Your task to perform on an android device: Do I have any events this weekend? Image 0: 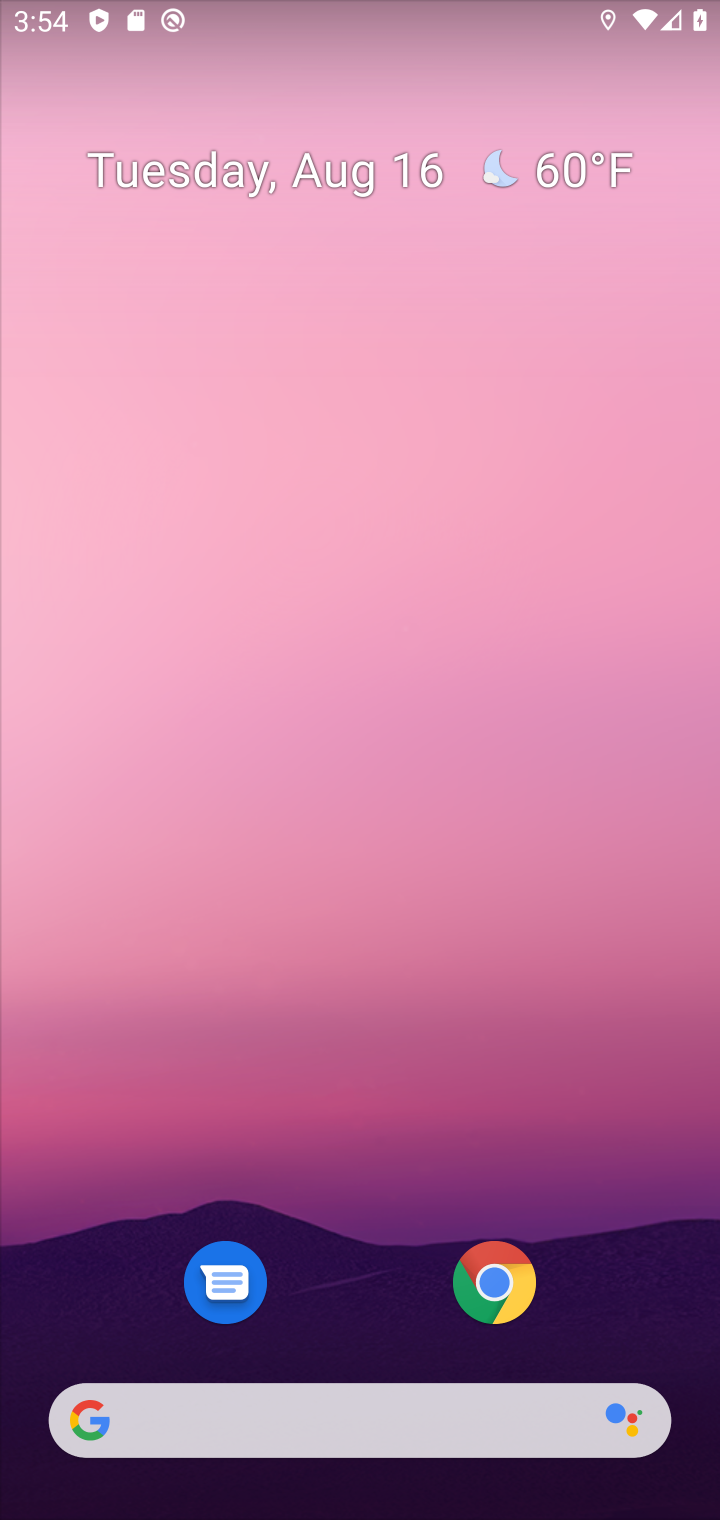
Step 0: drag from (563, 78) to (569, 7)
Your task to perform on an android device: Do I have any events this weekend? Image 1: 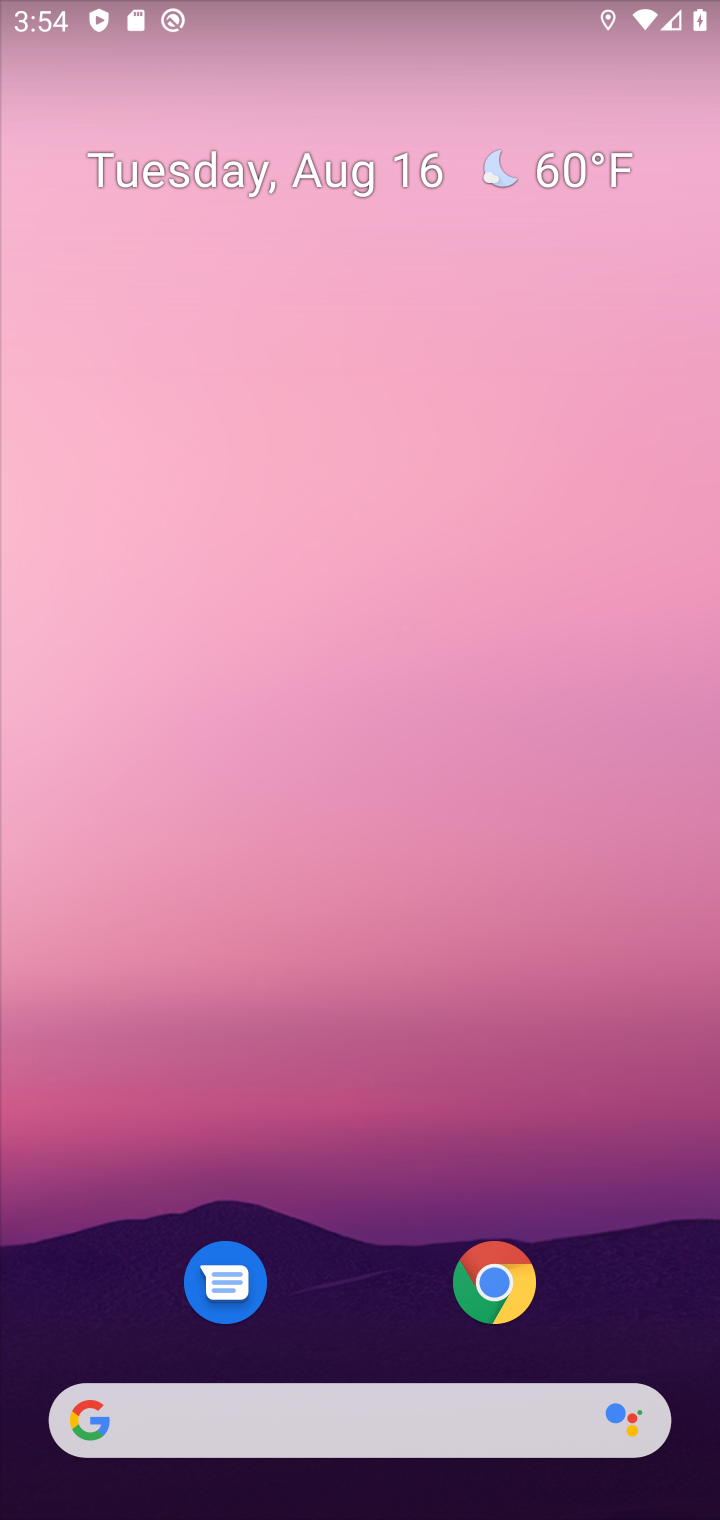
Step 1: drag from (380, 1163) to (289, 50)
Your task to perform on an android device: Do I have any events this weekend? Image 2: 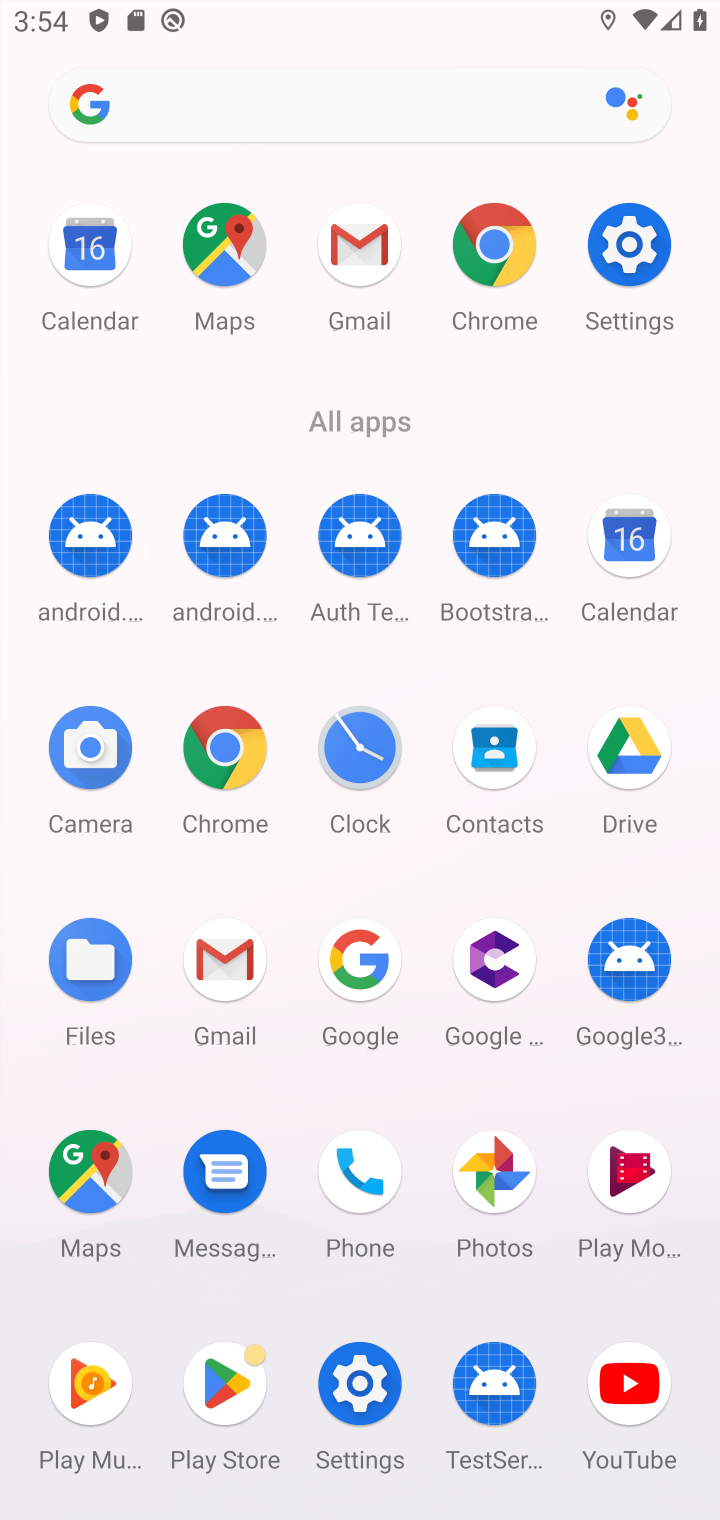
Step 2: click (74, 444)
Your task to perform on an android device: Do I have any events this weekend? Image 3: 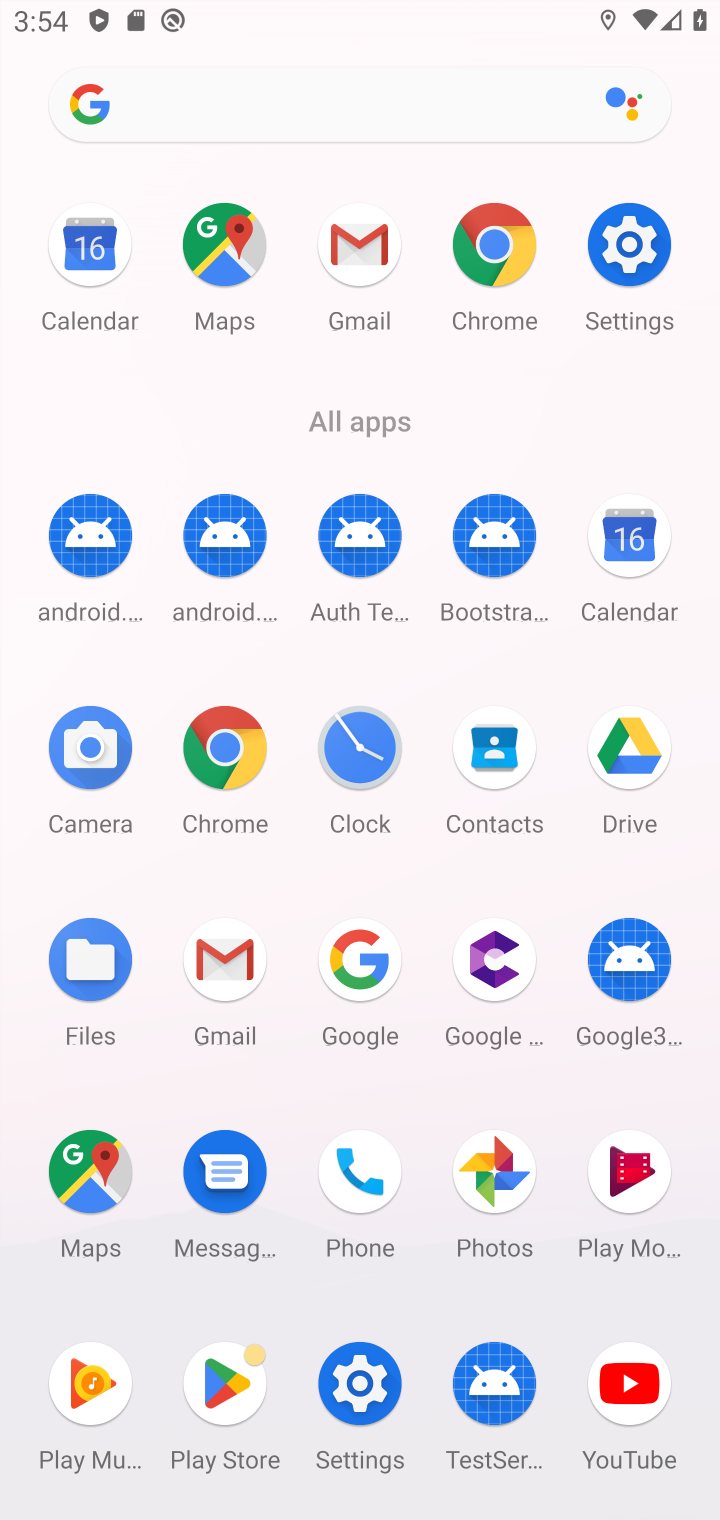
Step 3: click (621, 544)
Your task to perform on an android device: Do I have any events this weekend? Image 4: 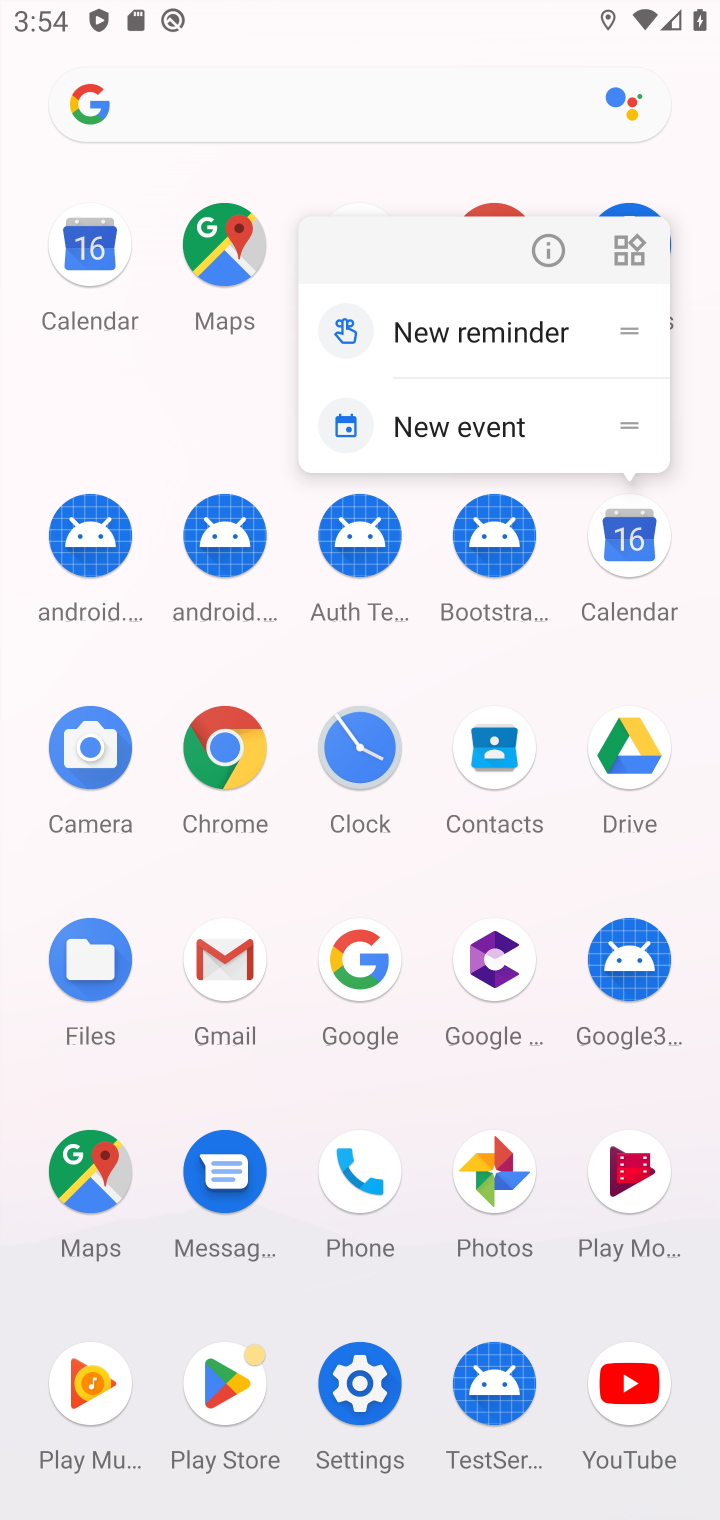
Step 4: click (649, 550)
Your task to perform on an android device: Do I have any events this weekend? Image 5: 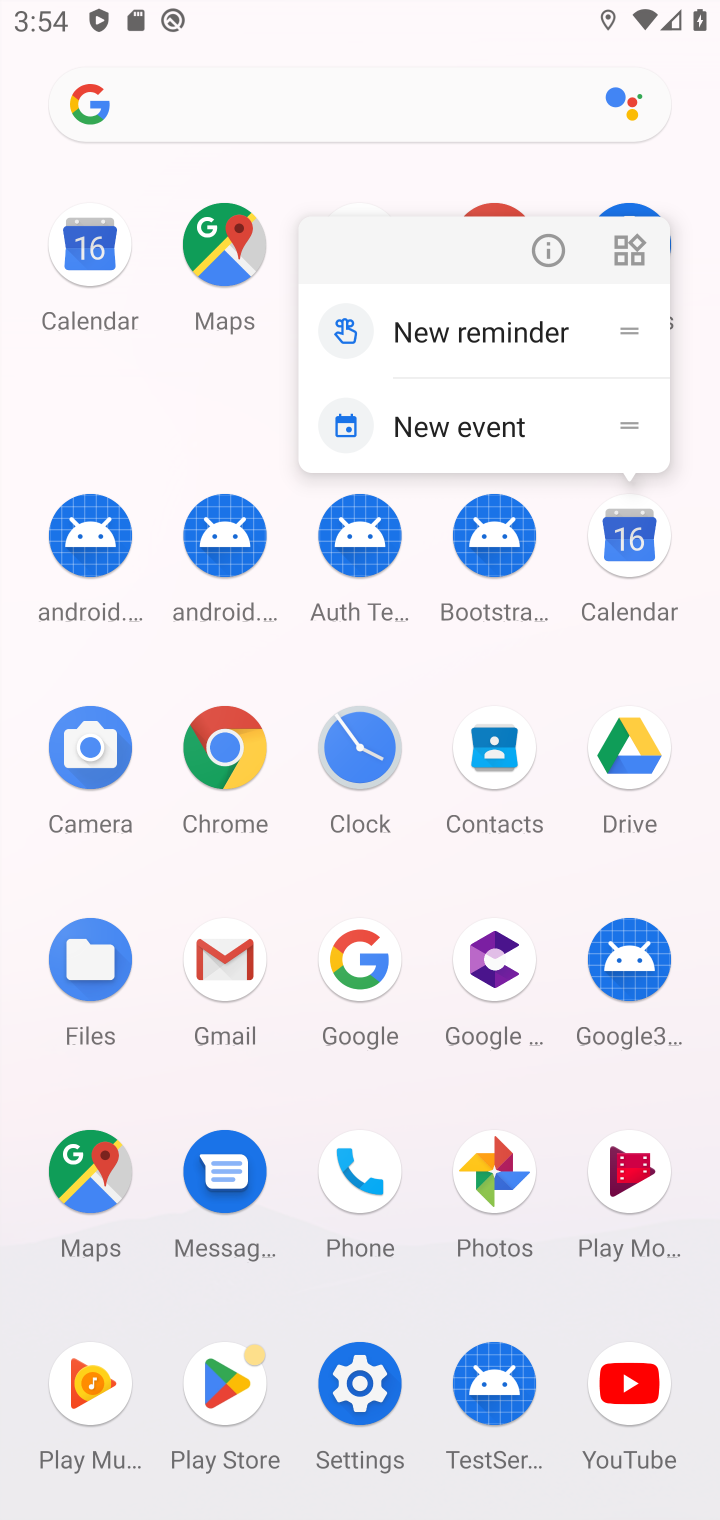
Step 5: click (639, 552)
Your task to perform on an android device: Do I have any events this weekend? Image 6: 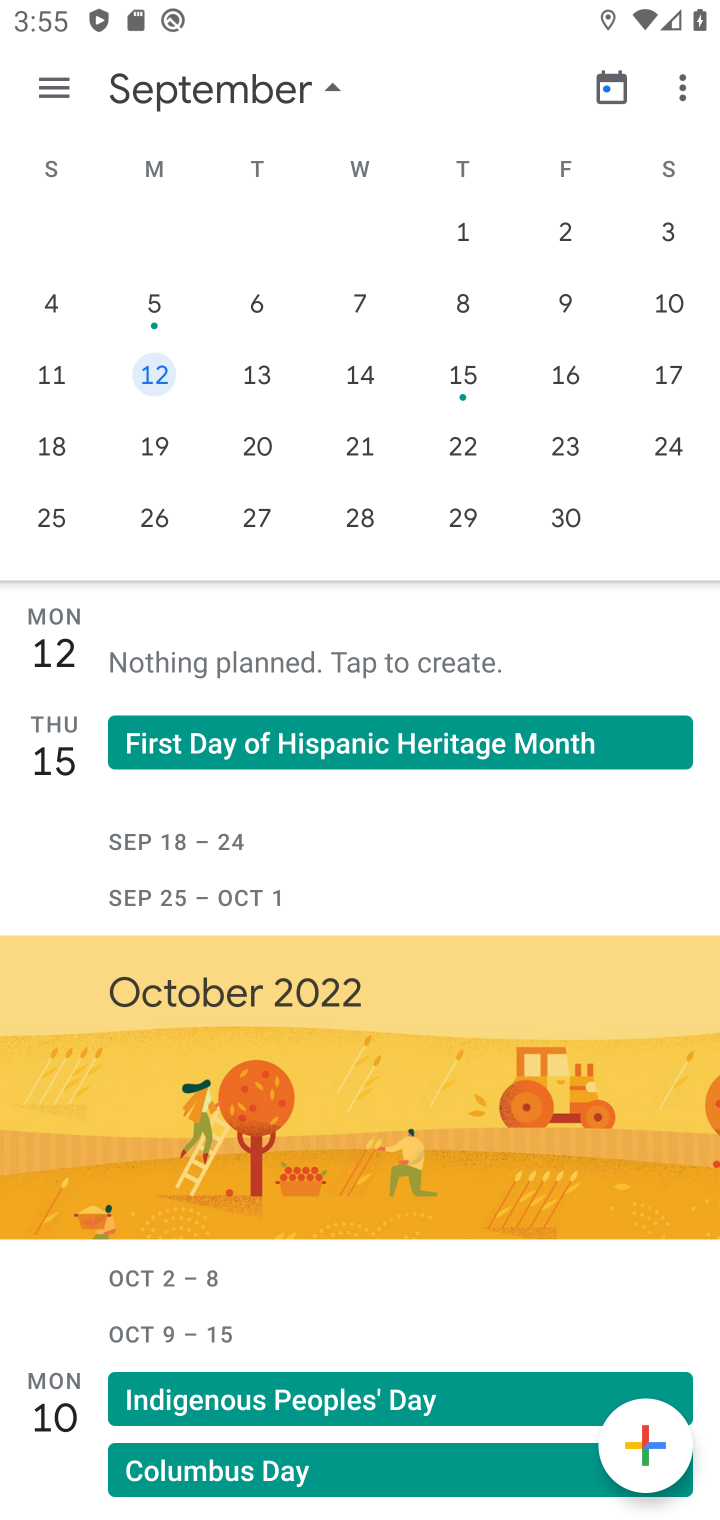
Step 6: drag from (33, 362) to (709, 383)
Your task to perform on an android device: Do I have any events this weekend? Image 7: 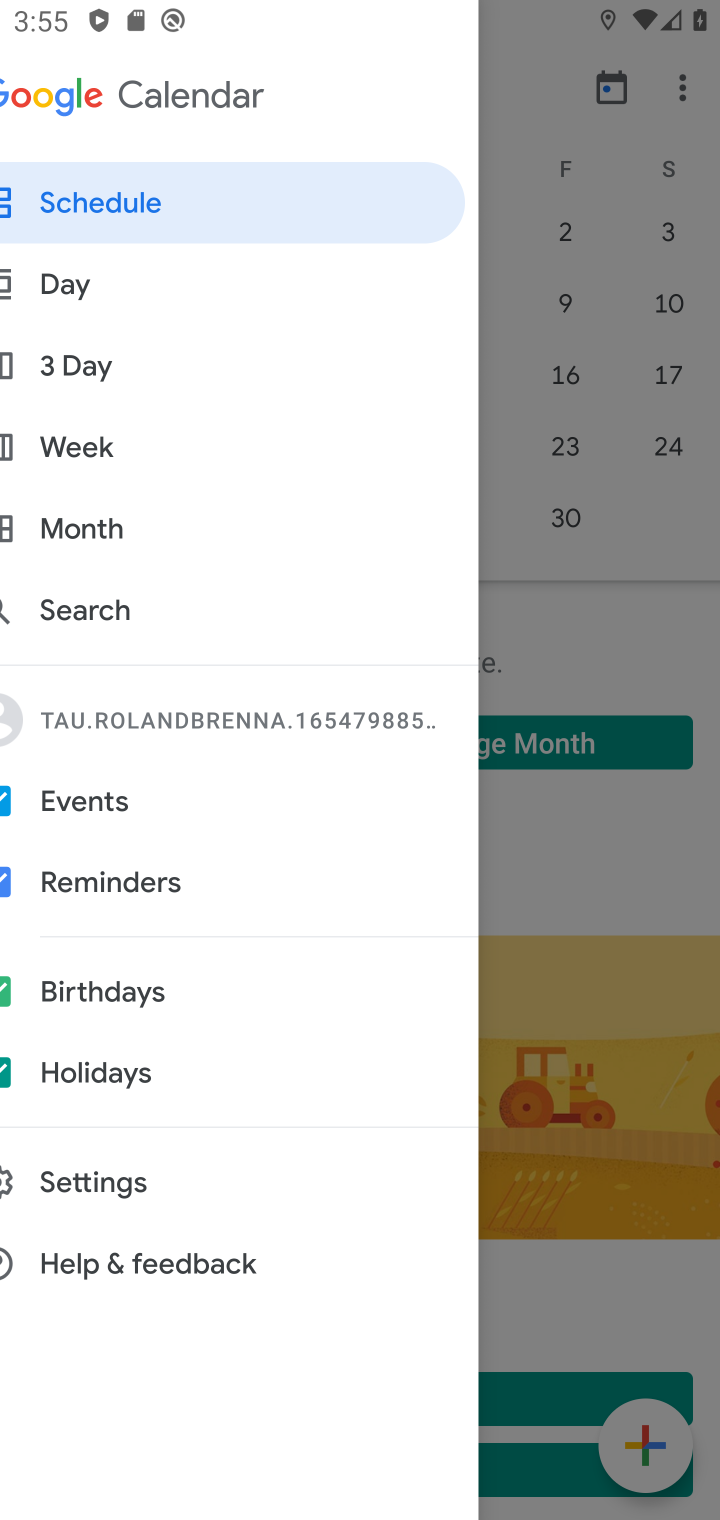
Step 7: drag from (511, 375) to (35, 436)
Your task to perform on an android device: Do I have any events this weekend? Image 8: 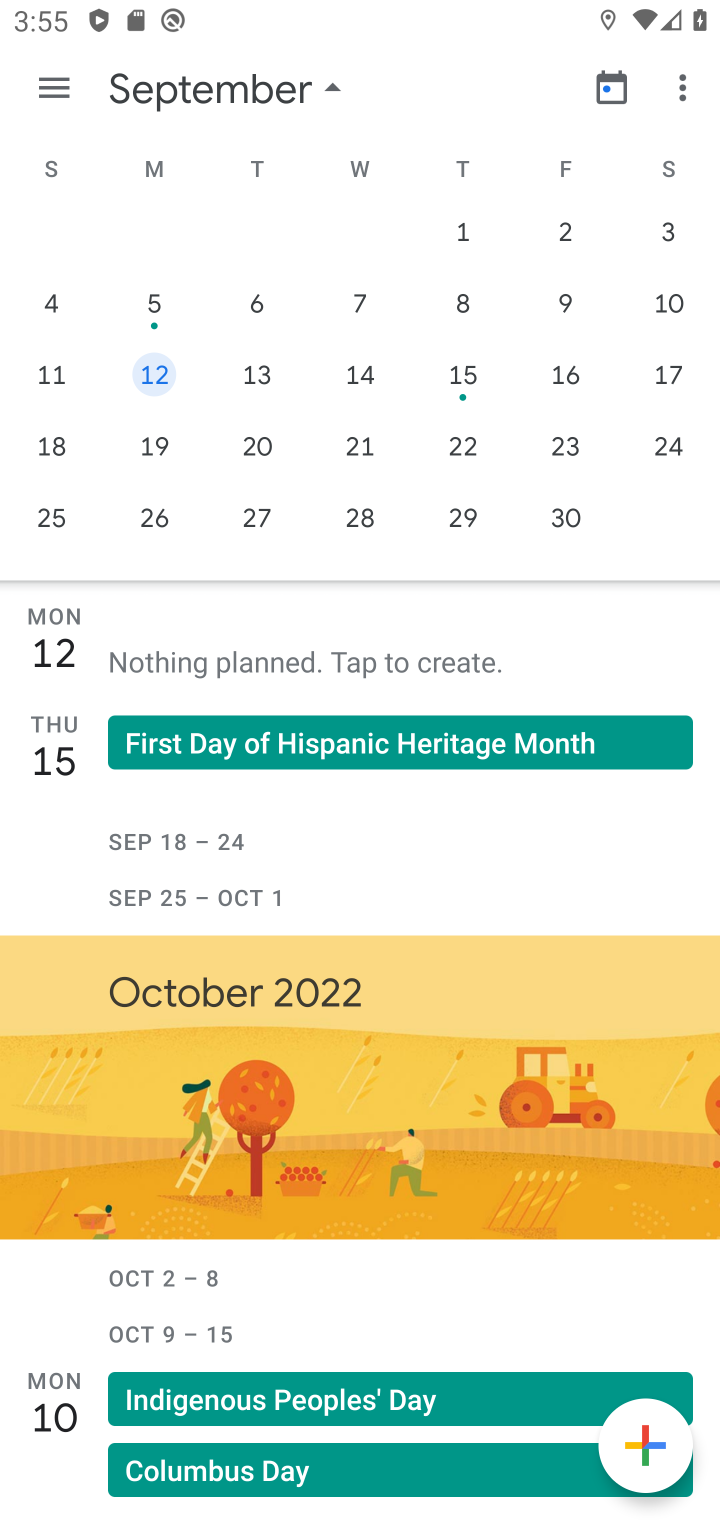
Step 8: drag from (52, 370) to (684, 376)
Your task to perform on an android device: Do I have any events this weekend? Image 9: 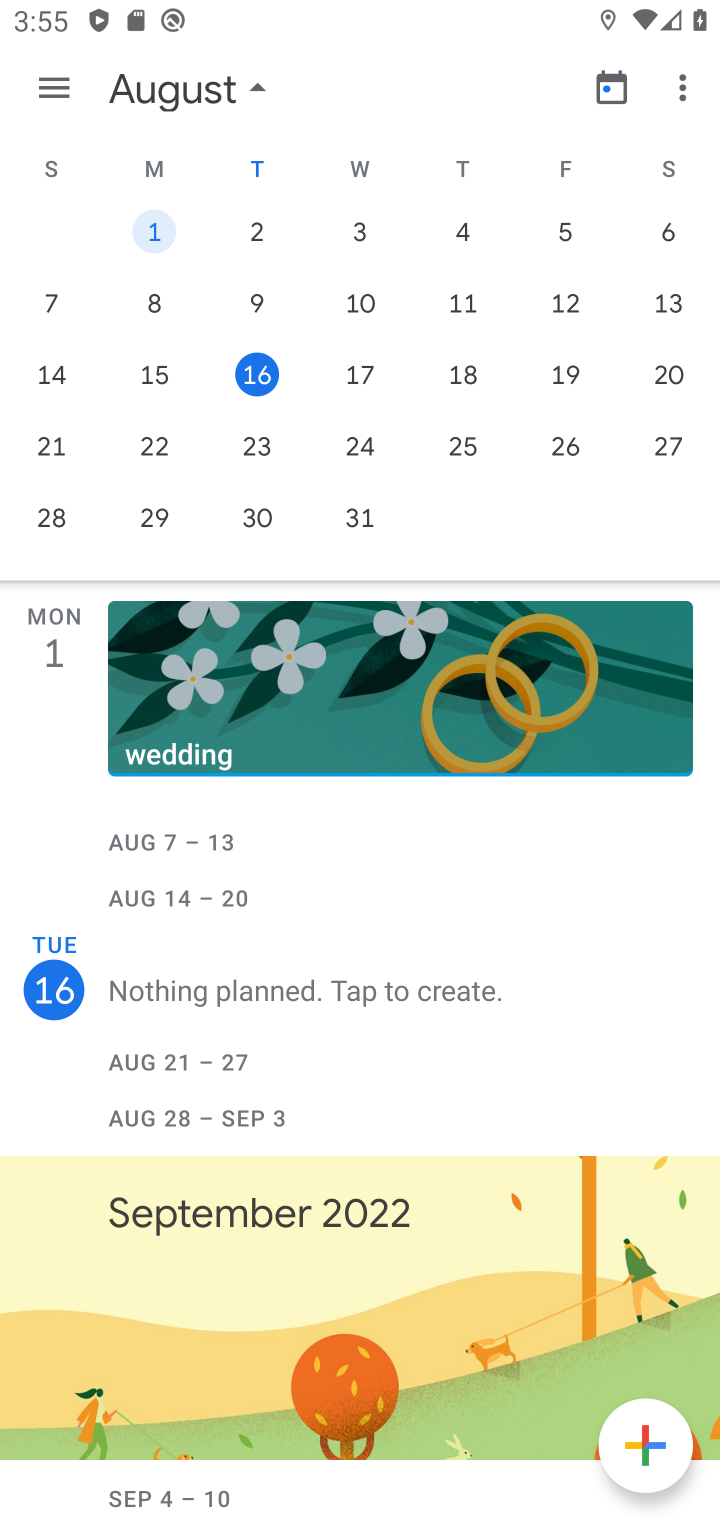
Step 9: click (669, 369)
Your task to perform on an android device: Do I have any events this weekend? Image 10: 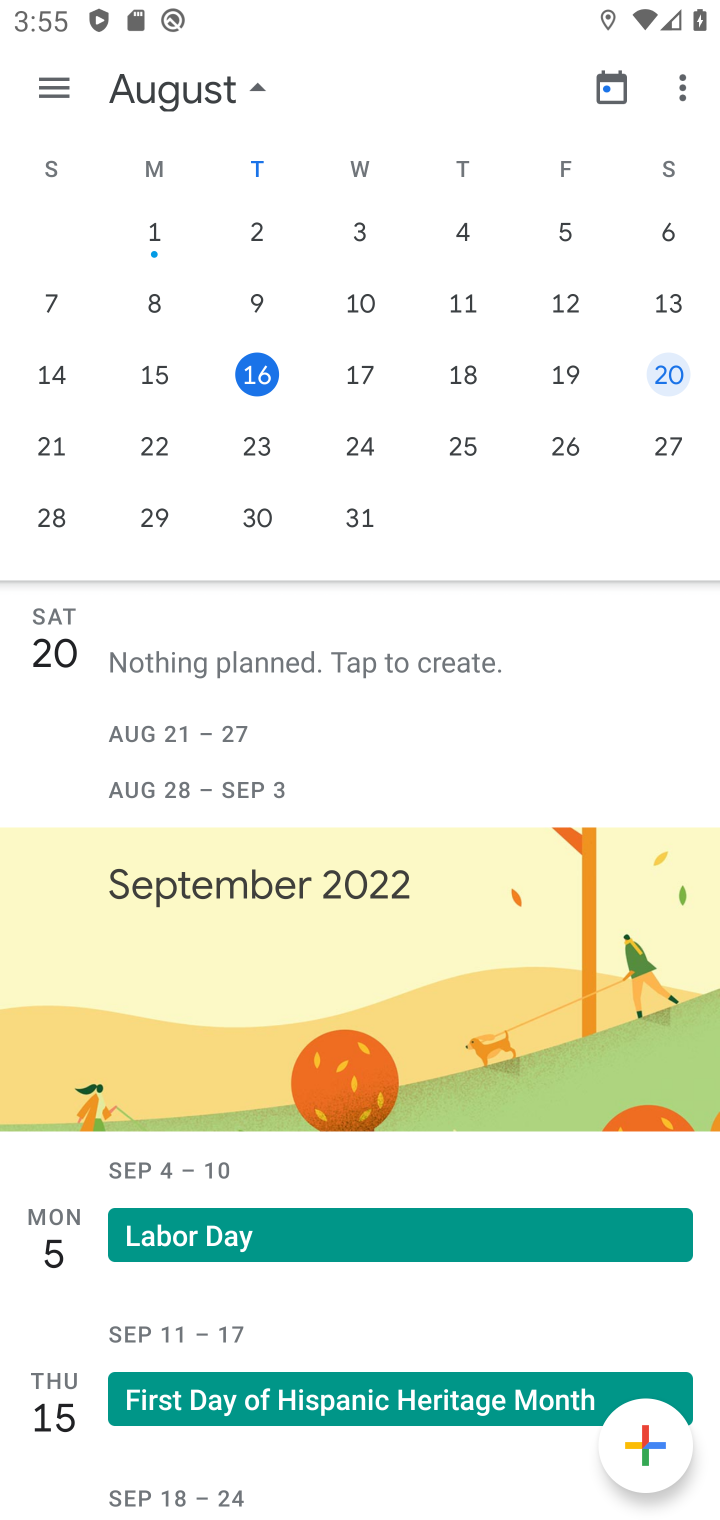
Step 10: task complete